Your task to perform on an android device: turn notification dots off Image 0: 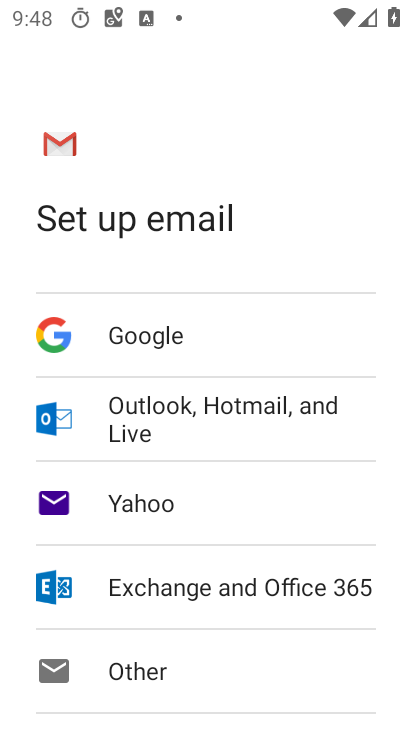
Step 0: press home button
Your task to perform on an android device: turn notification dots off Image 1: 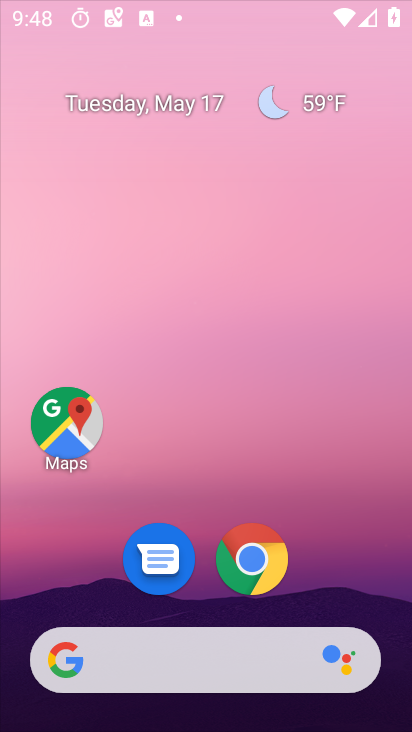
Step 1: drag from (237, 615) to (302, 209)
Your task to perform on an android device: turn notification dots off Image 2: 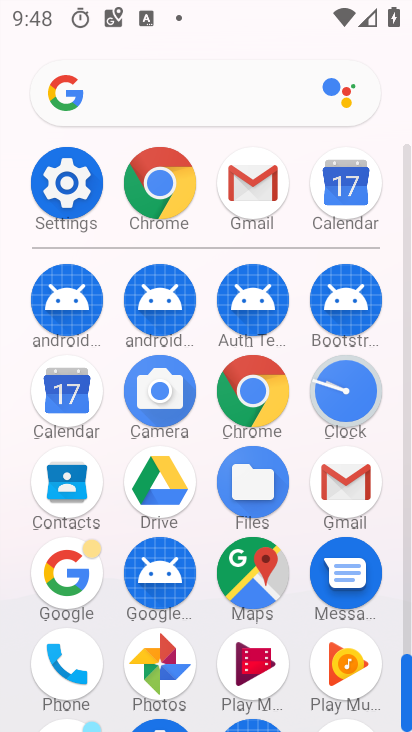
Step 2: click (62, 215)
Your task to perform on an android device: turn notification dots off Image 3: 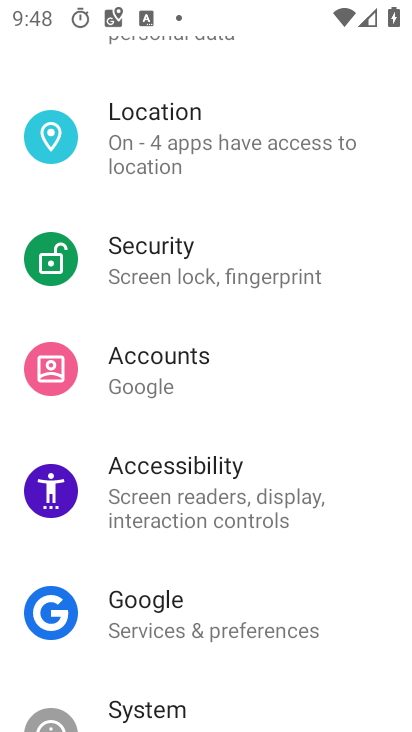
Step 3: drag from (129, 206) to (58, 503)
Your task to perform on an android device: turn notification dots off Image 4: 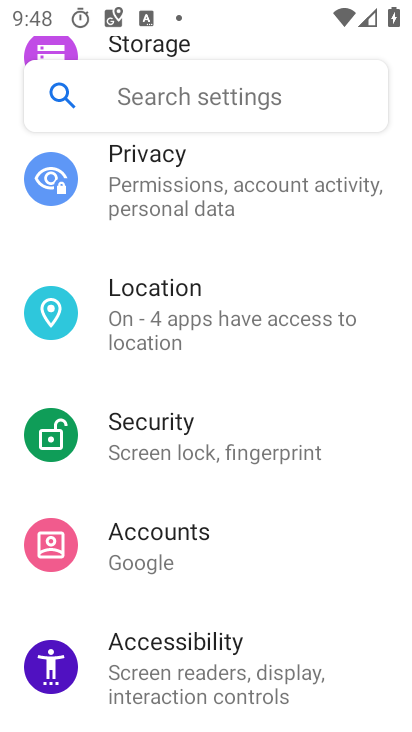
Step 4: drag from (151, 169) to (185, 374)
Your task to perform on an android device: turn notification dots off Image 5: 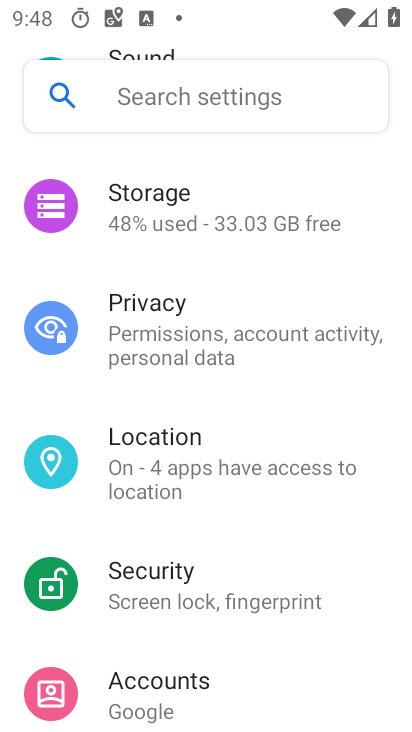
Step 5: drag from (228, 149) to (259, 491)
Your task to perform on an android device: turn notification dots off Image 6: 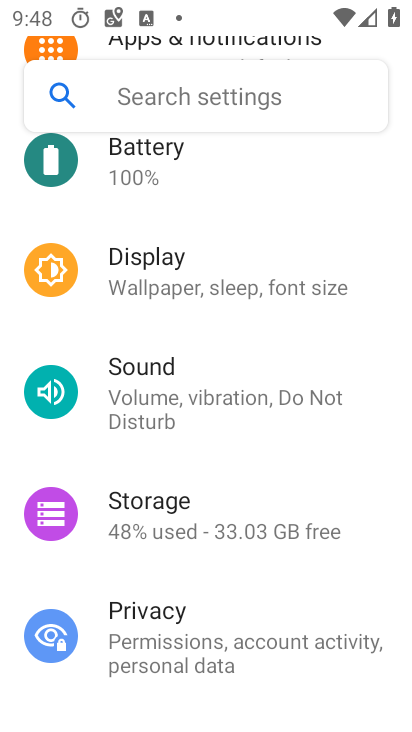
Step 6: drag from (240, 272) to (253, 657)
Your task to perform on an android device: turn notification dots off Image 7: 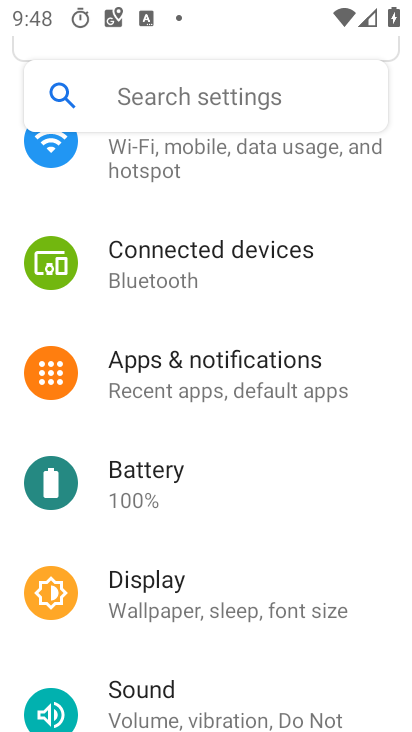
Step 7: click (204, 386)
Your task to perform on an android device: turn notification dots off Image 8: 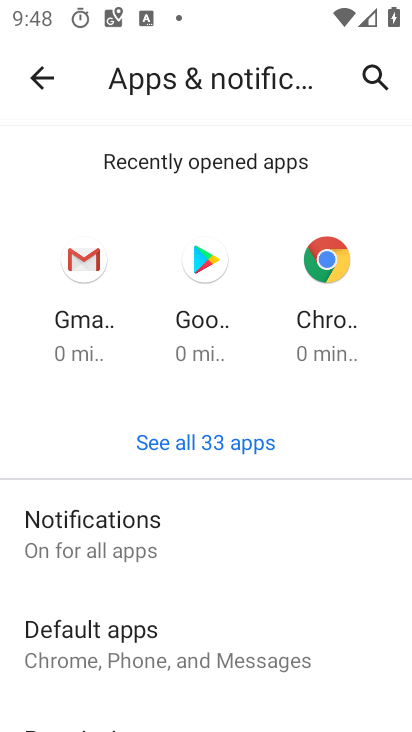
Step 8: click (178, 533)
Your task to perform on an android device: turn notification dots off Image 9: 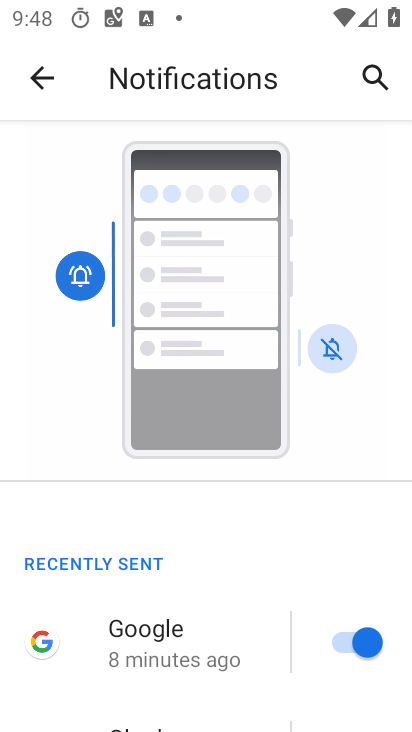
Step 9: drag from (171, 707) to (154, 252)
Your task to perform on an android device: turn notification dots off Image 10: 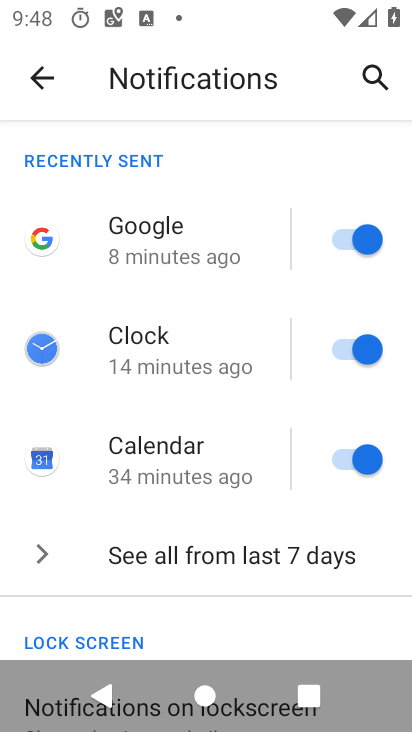
Step 10: drag from (152, 558) to (210, 182)
Your task to perform on an android device: turn notification dots off Image 11: 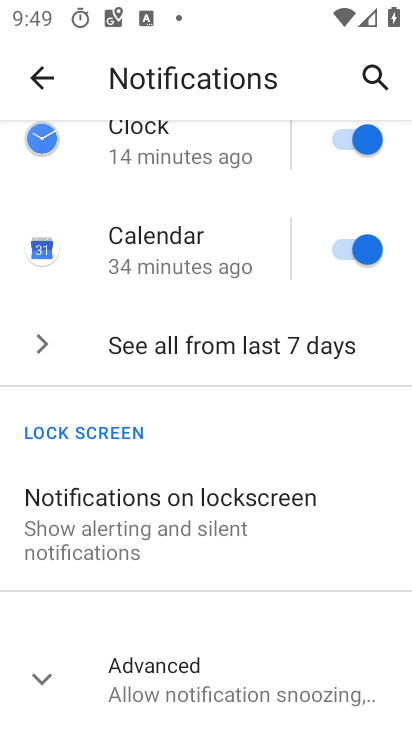
Step 11: click (128, 714)
Your task to perform on an android device: turn notification dots off Image 12: 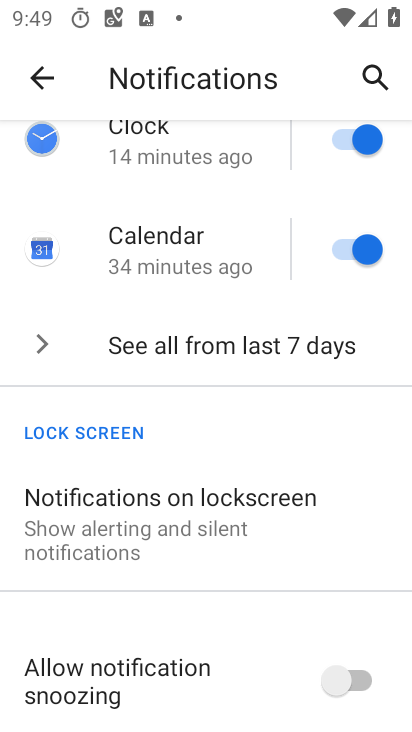
Step 12: drag from (174, 573) to (263, 38)
Your task to perform on an android device: turn notification dots off Image 13: 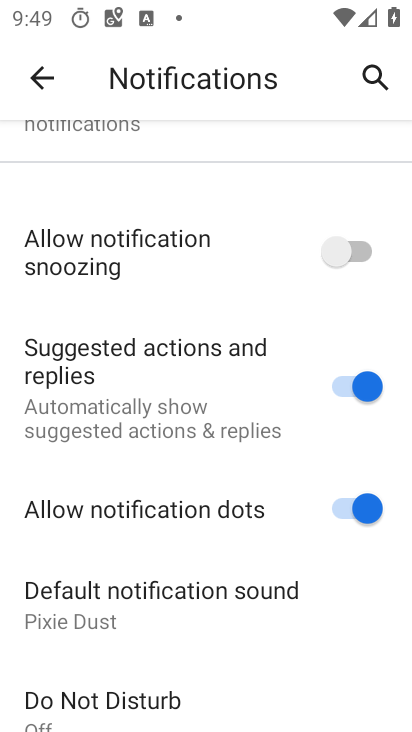
Step 13: click (341, 521)
Your task to perform on an android device: turn notification dots off Image 14: 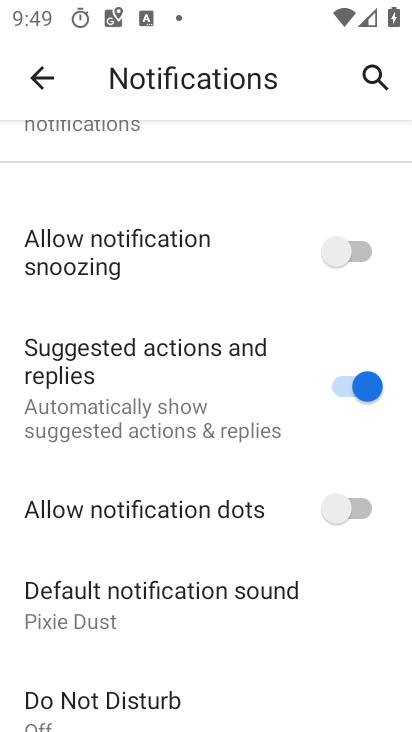
Step 14: task complete